Your task to perform on an android device: see sites visited before in the chrome app Image 0: 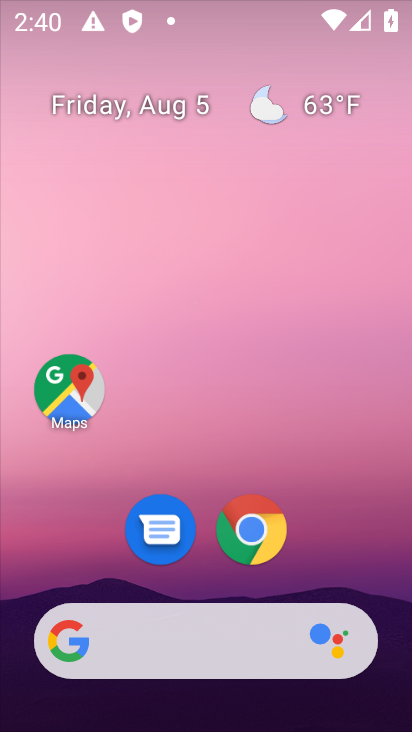
Step 0: press home button
Your task to perform on an android device: see sites visited before in the chrome app Image 1: 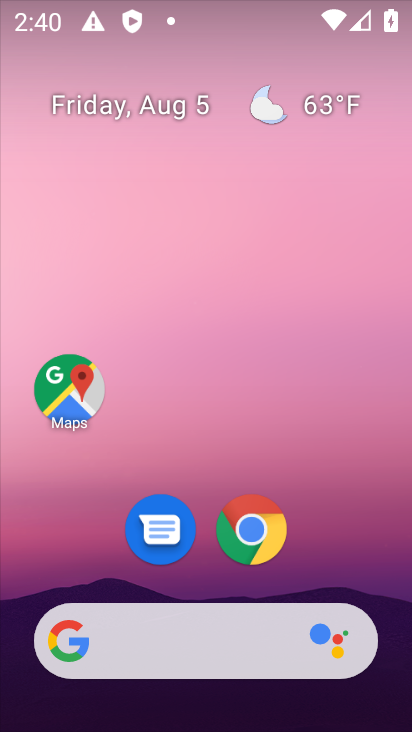
Step 1: click (242, 538)
Your task to perform on an android device: see sites visited before in the chrome app Image 2: 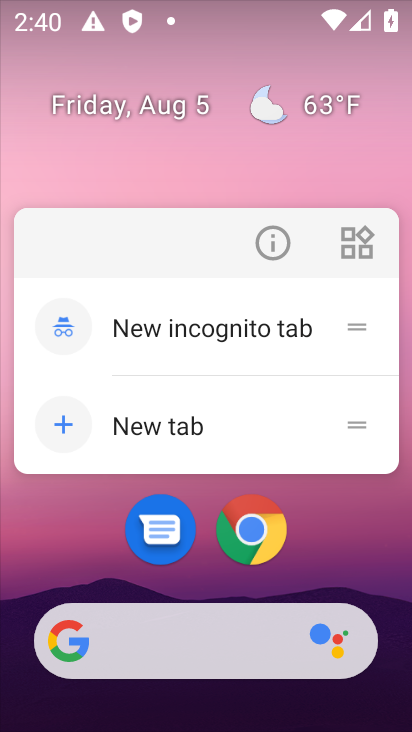
Step 2: click (242, 538)
Your task to perform on an android device: see sites visited before in the chrome app Image 3: 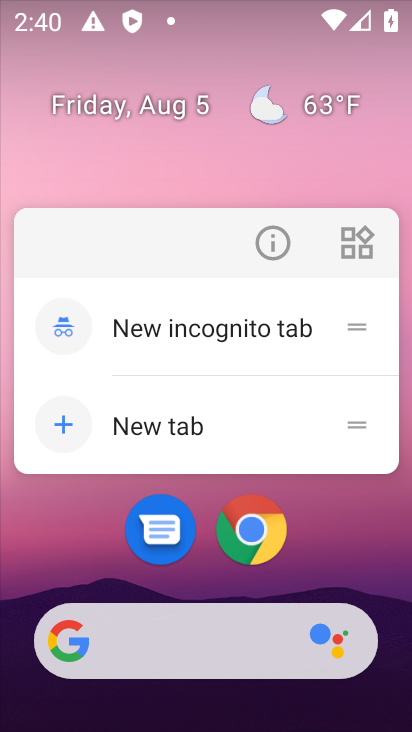
Step 3: click (347, 553)
Your task to perform on an android device: see sites visited before in the chrome app Image 4: 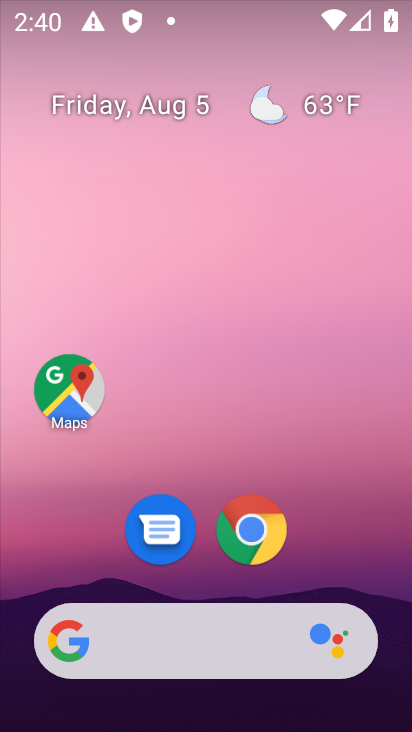
Step 4: drag from (352, 568) to (277, 69)
Your task to perform on an android device: see sites visited before in the chrome app Image 5: 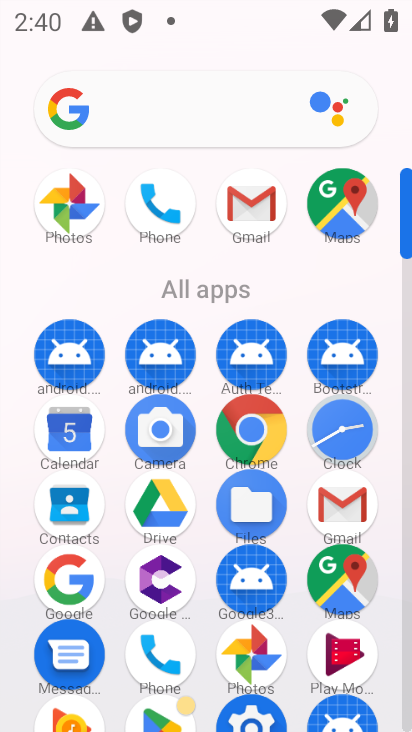
Step 5: click (257, 426)
Your task to perform on an android device: see sites visited before in the chrome app Image 6: 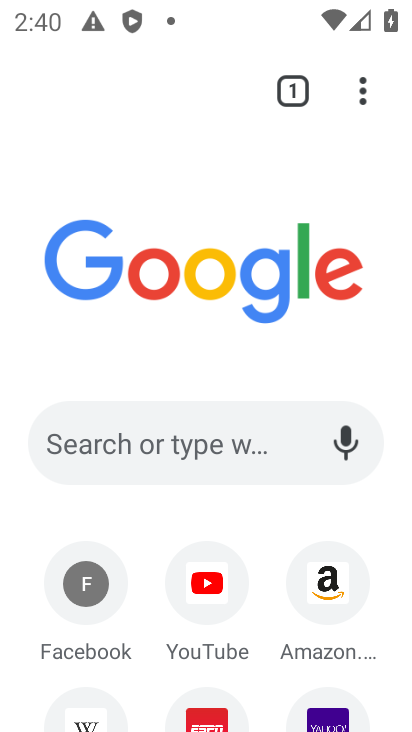
Step 6: task complete